Your task to perform on an android device: Open display settings Image 0: 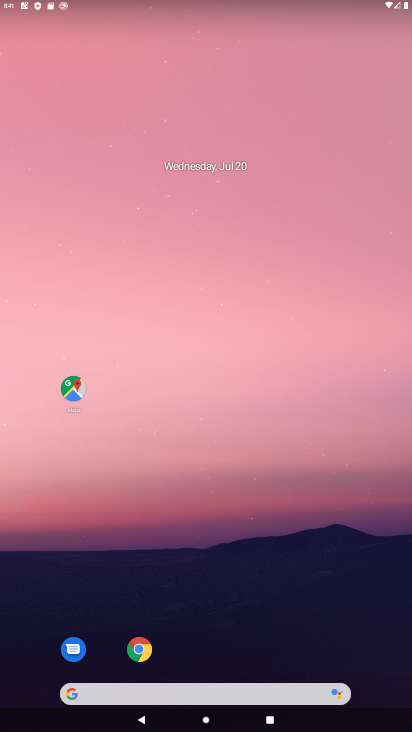
Step 0: drag from (207, 651) to (119, 71)
Your task to perform on an android device: Open display settings Image 1: 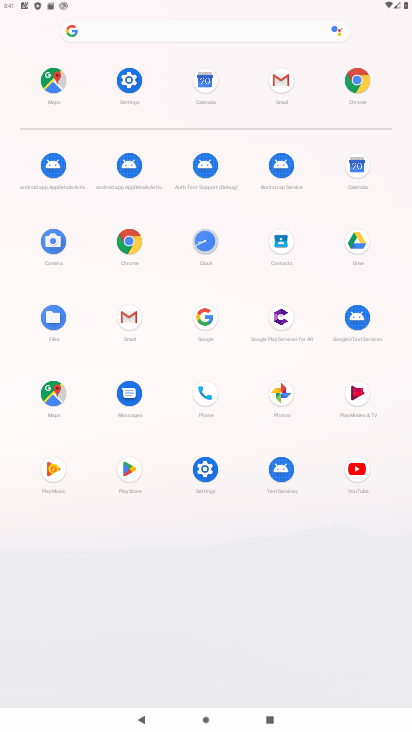
Step 1: click (146, 75)
Your task to perform on an android device: Open display settings Image 2: 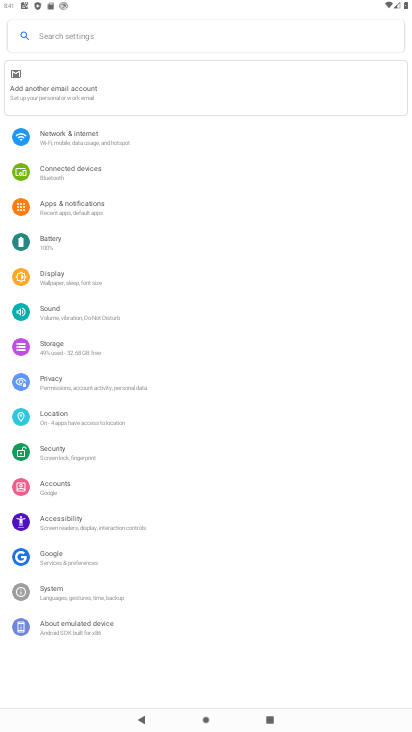
Step 2: click (115, 284)
Your task to perform on an android device: Open display settings Image 3: 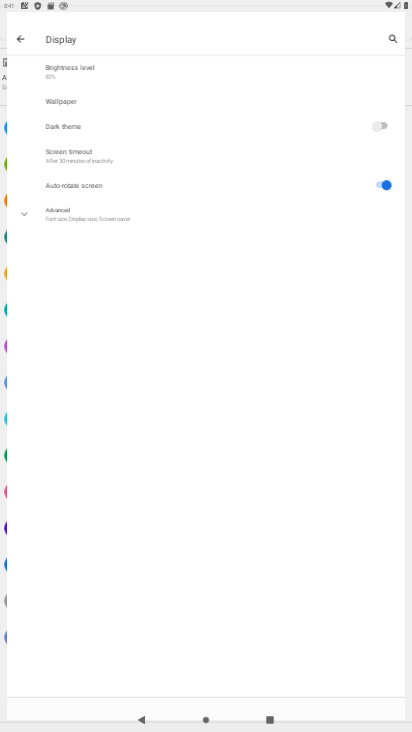
Step 3: task complete